Your task to perform on an android device: change keyboard looks Image 0: 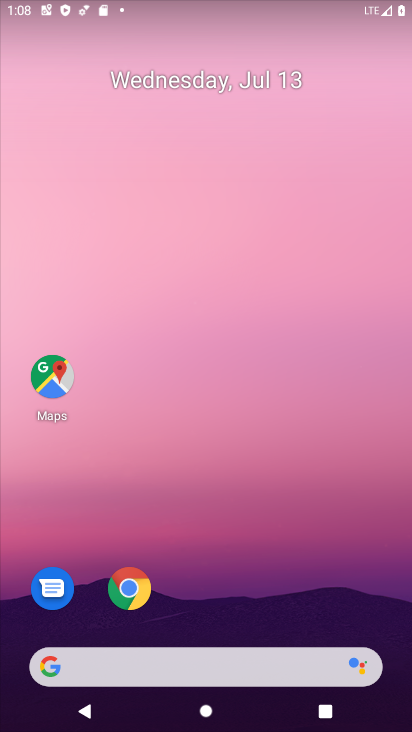
Step 0: drag from (394, 665) to (365, 192)
Your task to perform on an android device: change keyboard looks Image 1: 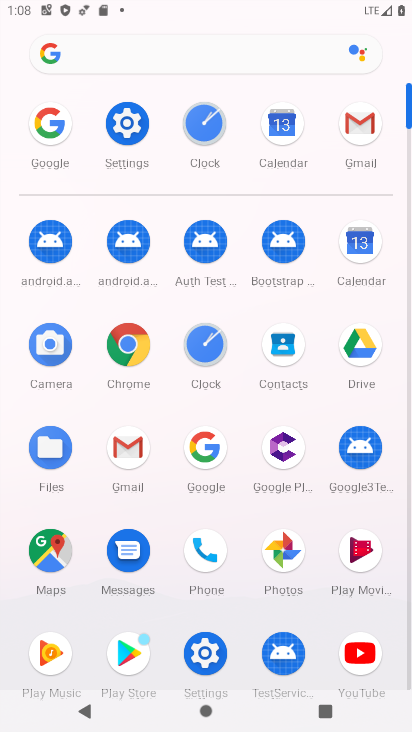
Step 1: click (208, 662)
Your task to perform on an android device: change keyboard looks Image 2: 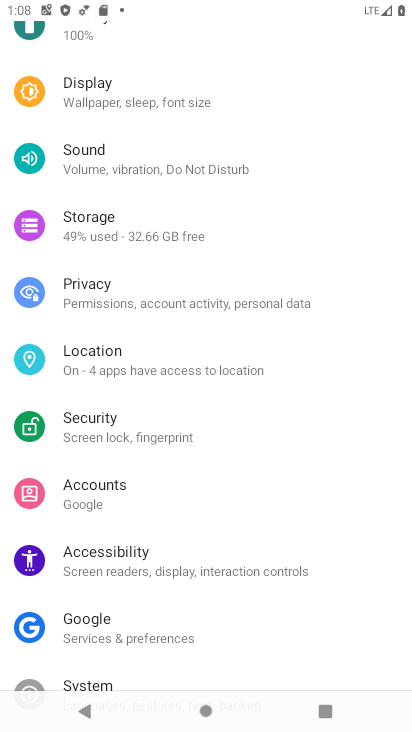
Step 2: drag from (301, 651) to (307, 278)
Your task to perform on an android device: change keyboard looks Image 3: 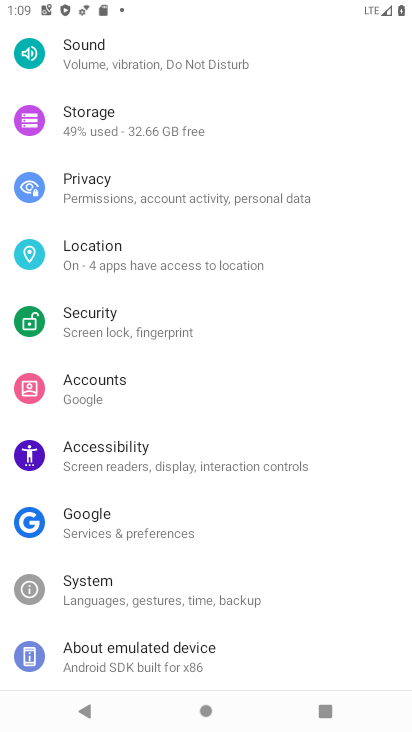
Step 3: click (120, 581)
Your task to perform on an android device: change keyboard looks Image 4: 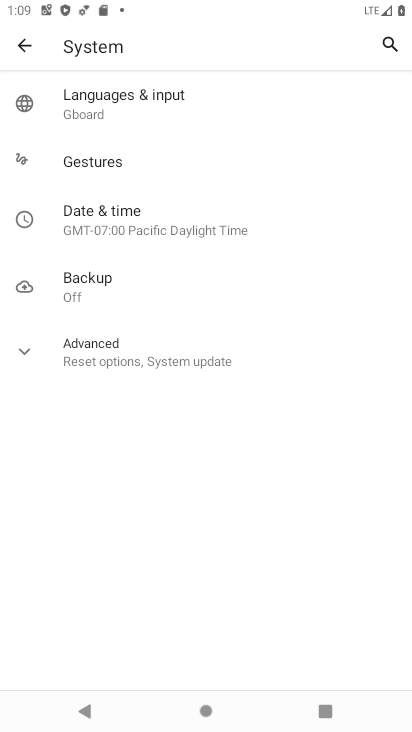
Step 4: click (93, 98)
Your task to perform on an android device: change keyboard looks Image 5: 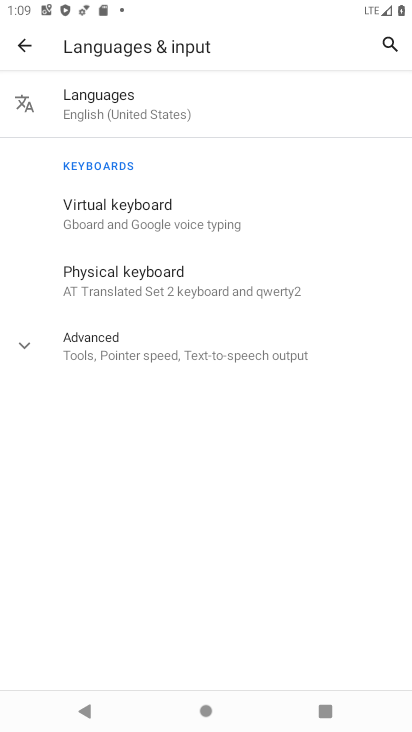
Step 5: click (105, 209)
Your task to perform on an android device: change keyboard looks Image 6: 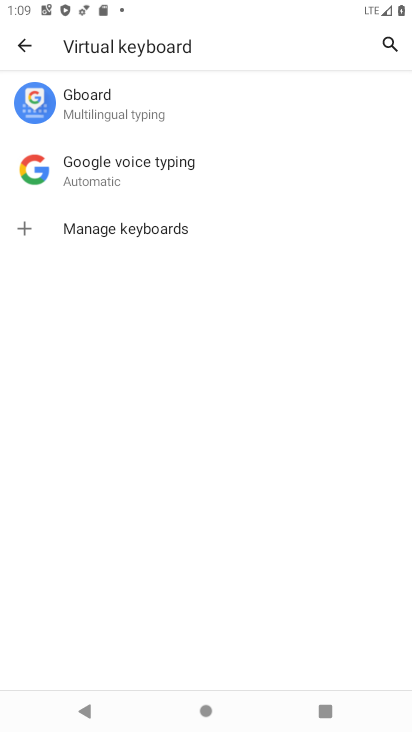
Step 6: click (74, 110)
Your task to perform on an android device: change keyboard looks Image 7: 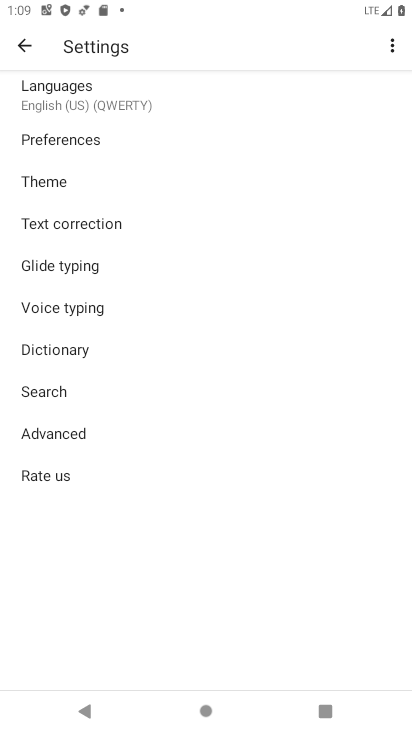
Step 7: click (38, 183)
Your task to perform on an android device: change keyboard looks Image 8: 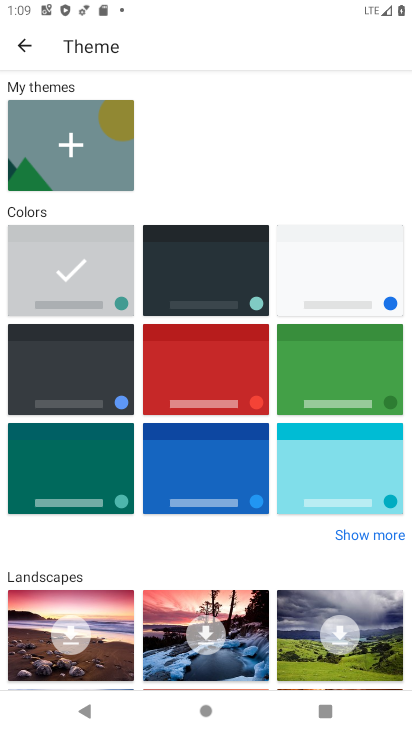
Step 8: click (175, 379)
Your task to perform on an android device: change keyboard looks Image 9: 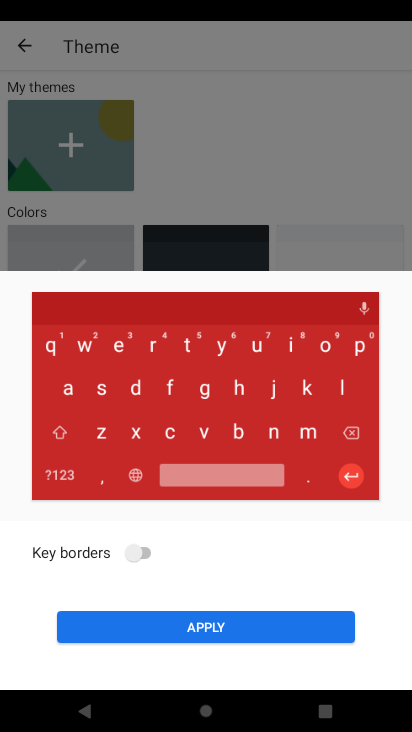
Step 9: click (214, 628)
Your task to perform on an android device: change keyboard looks Image 10: 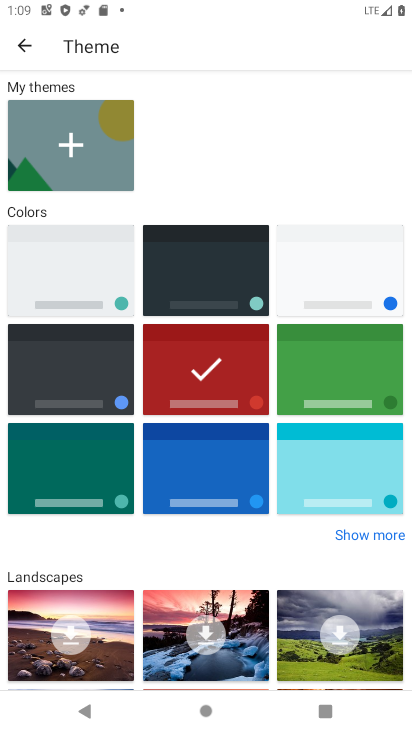
Step 10: task complete